Your task to perform on an android device: Open calendar and show me the first week of next month Image 0: 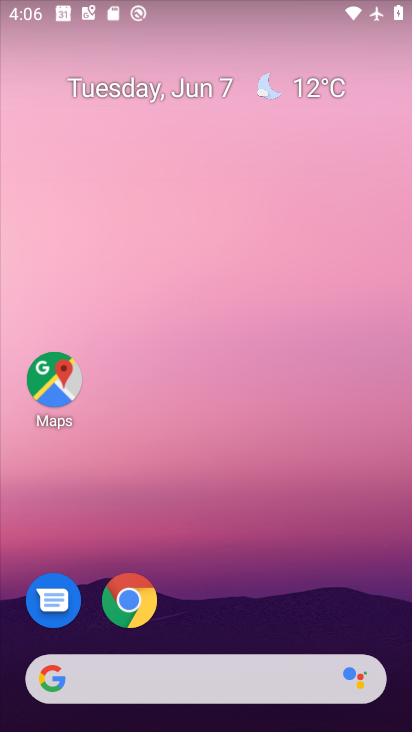
Step 0: drag from (264, 520) to (146, 141)
Your task to perform on an android device: Open calendar and show me the first week of next month Image 1: 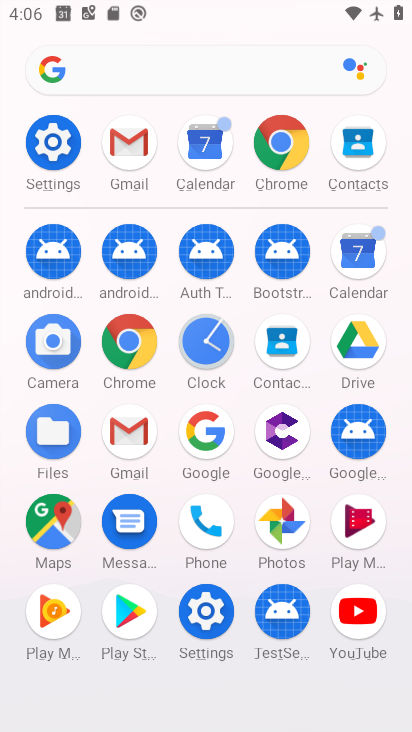
Step 1: click (366, 242)
Your task to perform on an android device: Open calendar and show me the first week of next month Image 2: 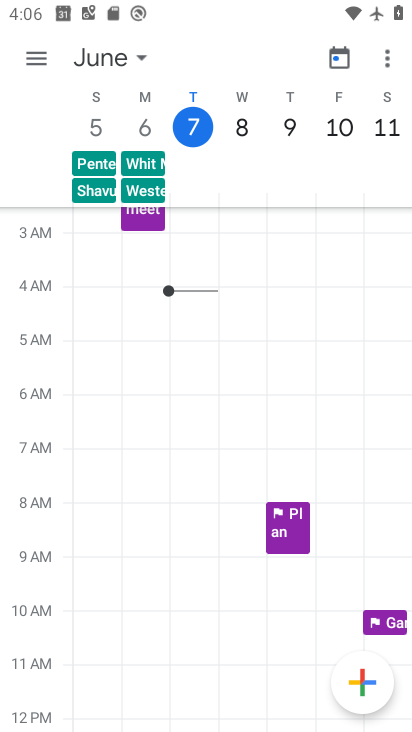
Step 2: task complete